Your task to perform on an android device: Go to Android settings Image 0: 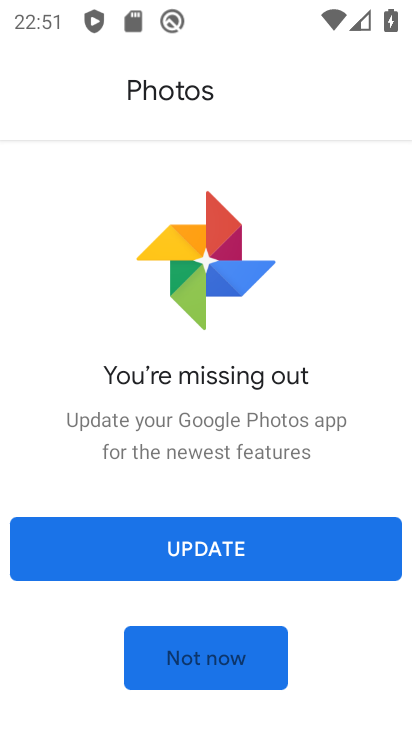
Step 0: press home button
Your task to perform on an android device: Go to Android settings Image 1: 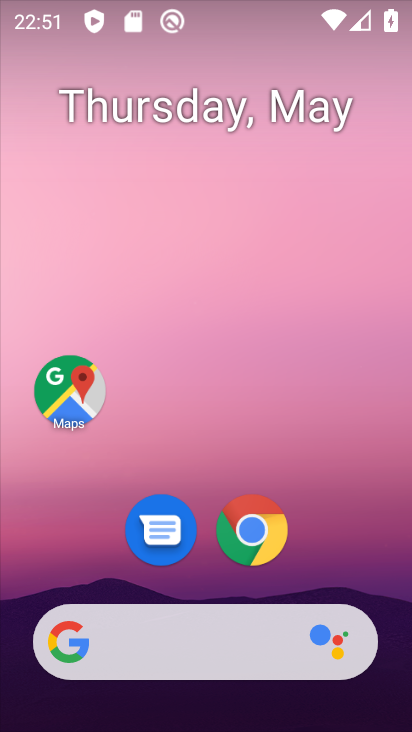
Step 1: drag from (326, 530) to (237, 27)
Your task to perform on an android device: Go to Android settings Image 2: 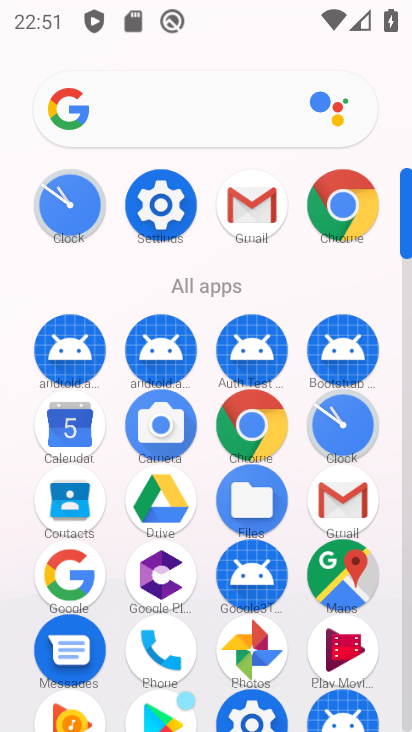
Step 2: click (161, 203)
Your task to perform on an android device: Go to Android settings Image 3: 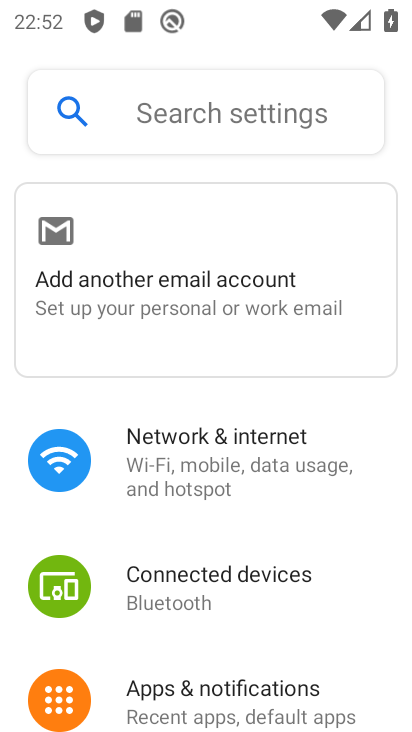
Step 3: task complete